Your task to perform on an android device: move an email to a new category in the gmail app Image 0: 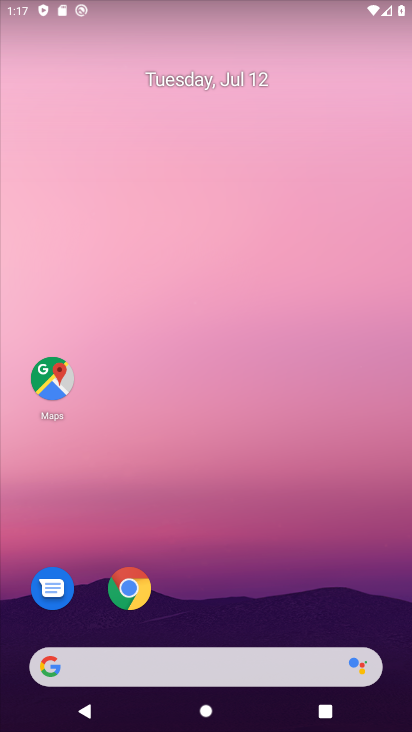
Step 0: drag from (191, 616) to (212, 114)
Your task to perform on an android device: move an email to a new category in the gmail app Image 1: 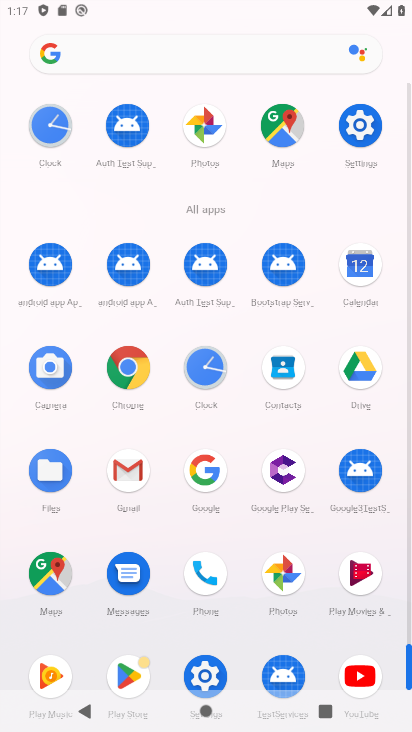
Step 1: click (121, 463)
Your task to perform on an android device: move an email to a new category in the gmail app Image 2: 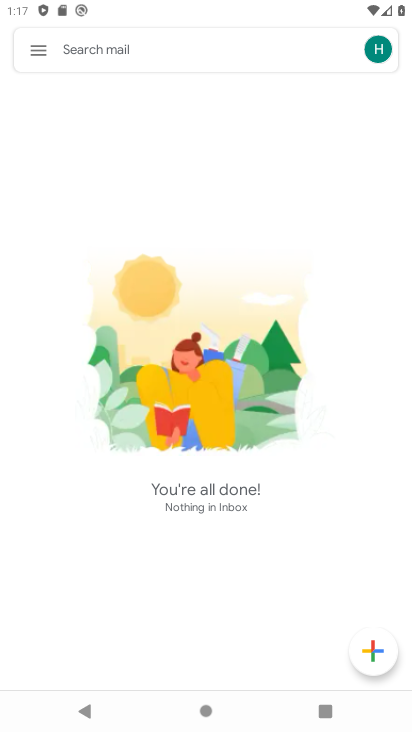
Step 2: drag from (157, 597) to (156, 336)
Your task to perform on an android device: move an email to a new category in the gmail app Image 3: 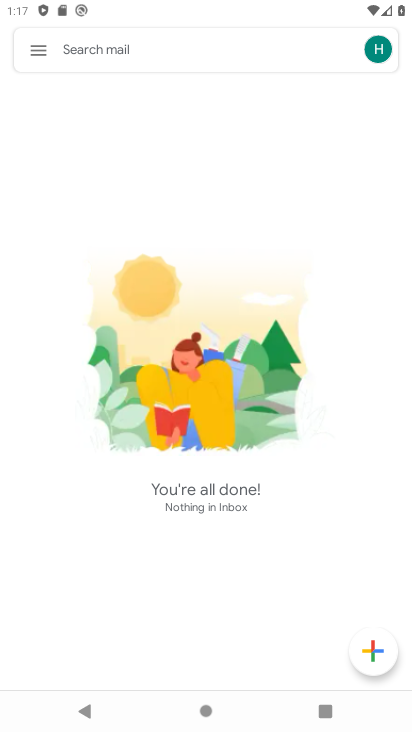
Step 3: click (29, 39)
Your task to perform on an android device: move an email to a new category in the gmail app Image 4: 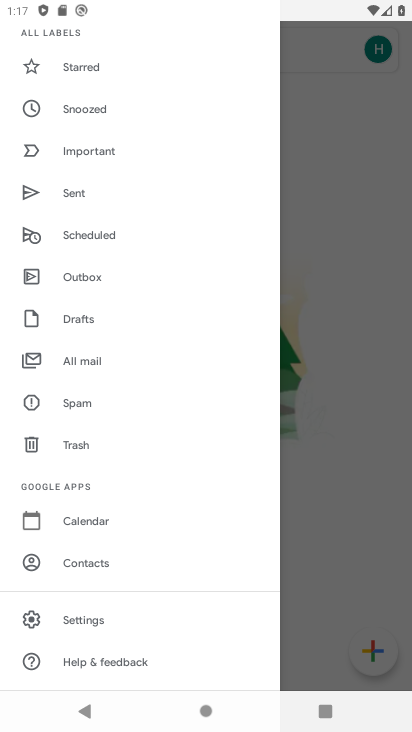
Step 4: drag from (150, 585) to (175, 161)
Your task to perform on an android device: move an email to a new category in the gmail app Image 5: 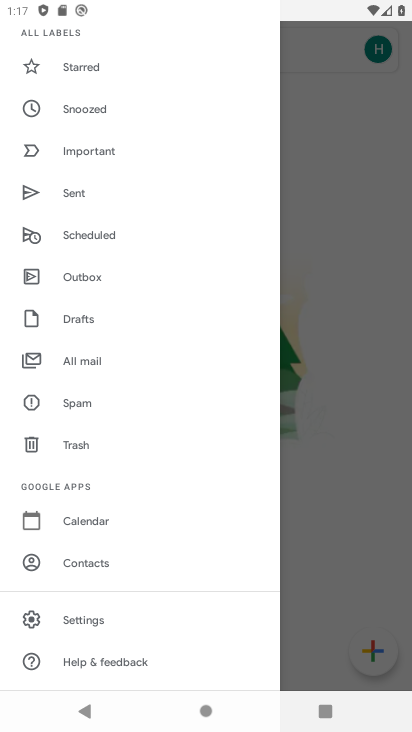
Step 5: drag from (102, 160) to (168, 669)
Your task to perform on an android device: move an email to a new category in the gmail app Image 6: 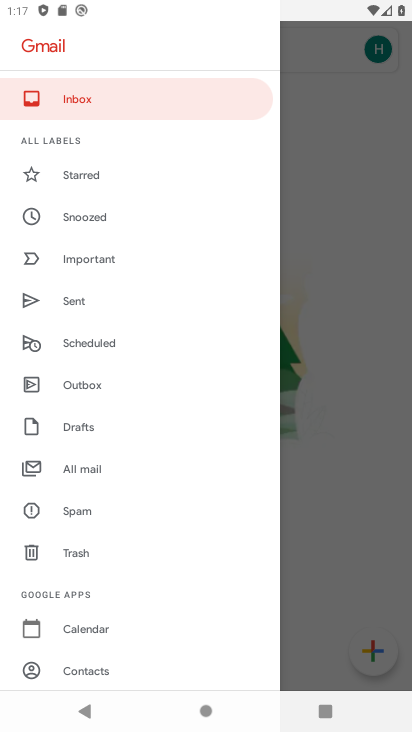
Step 6: click (65, 99)
Your task to perform on an android device: move an email to a new category in the gmail app Image 7: 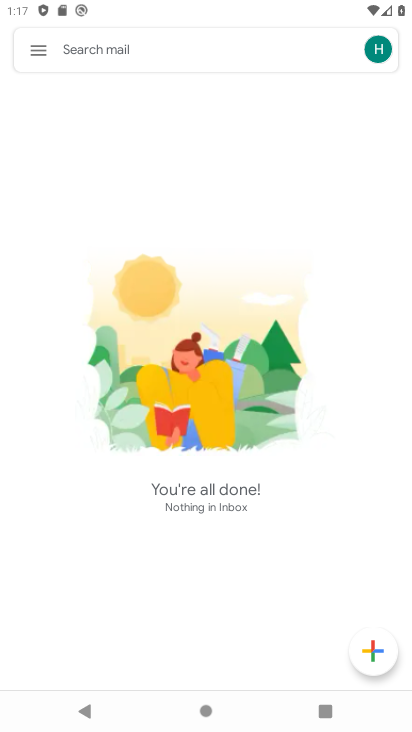
Step 7: task complete